Your task to perform on an android device: turn off improve location accuracy Image 0: 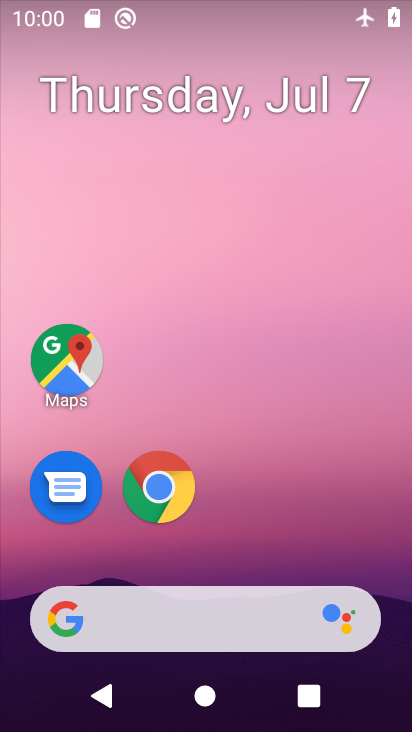
Step 0: drag from (362, 539) to (381, 115)
Your task to perform on an android device: turn off improve location accuracy Image 1: 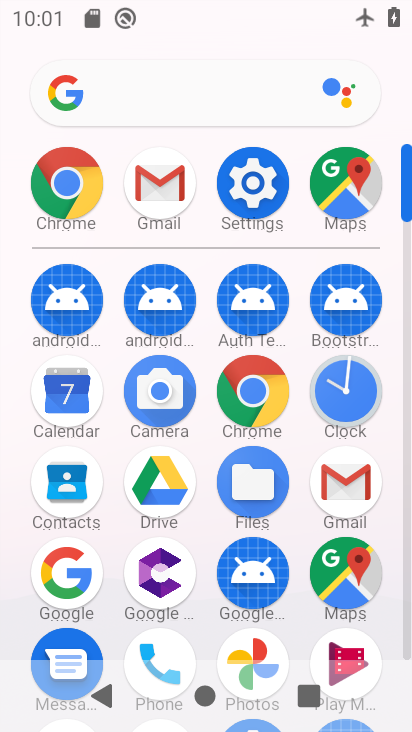
Step 1: click (259, 197)
Your task to perform on an android device: turn off improve location accuracy Image 2: 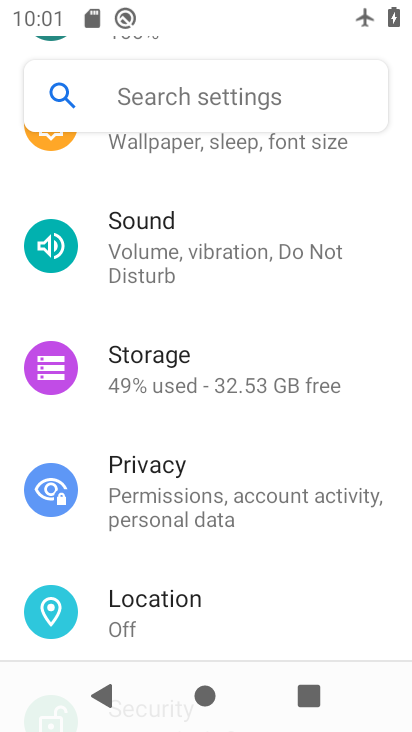
Step 2: drag from (361, 213) to (363, 330)
Your task to perform on an android device: turn off improve location accuracy Image 3: 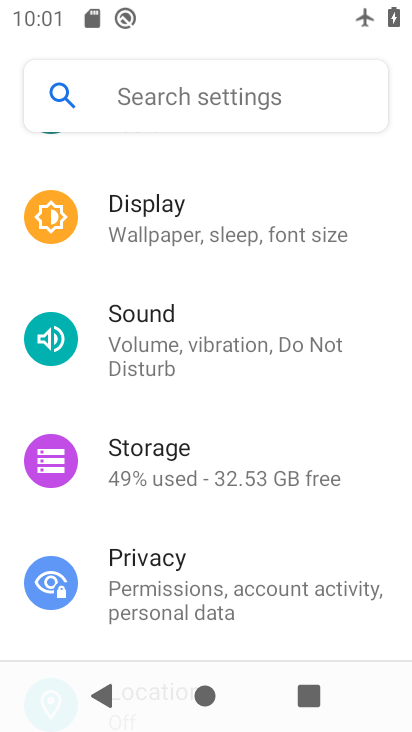
Step 3: drag from (373, 226) to (371, 338)
Your task to perform on an android device: turn off improve location accuracy Image 4: 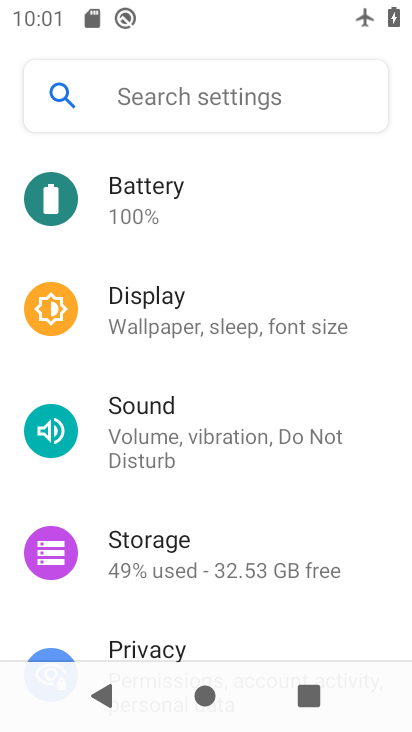
Step 4: drag from (367, 222) to (372, 345)
Your task to perform on an android device: turn off improve location accuracy Image 5: 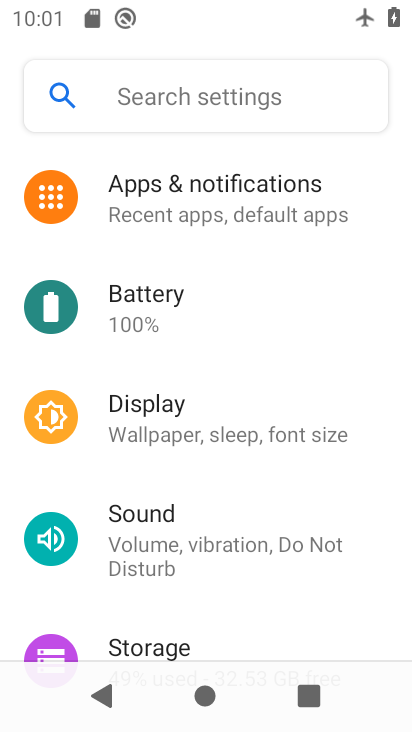
Step 5: drag from (370, 265) to (369, 365)
Your task to perform on an android device: turn off improve location accuracy Image 6: 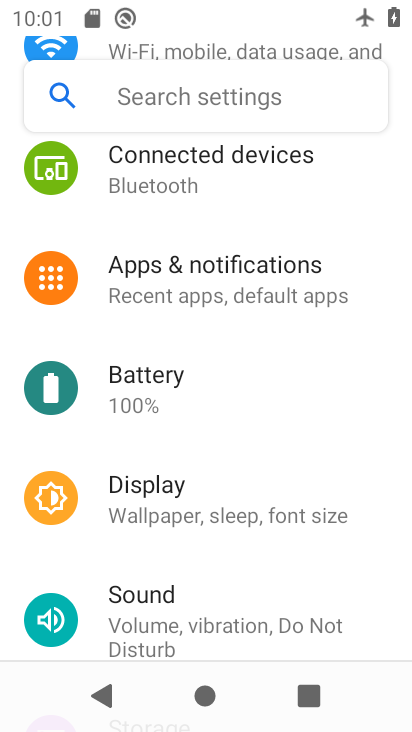
Step 6: drag from (354, 397) to (366, 315)
Your task to perform on an android device: turn off improve location accuracy Image 7: 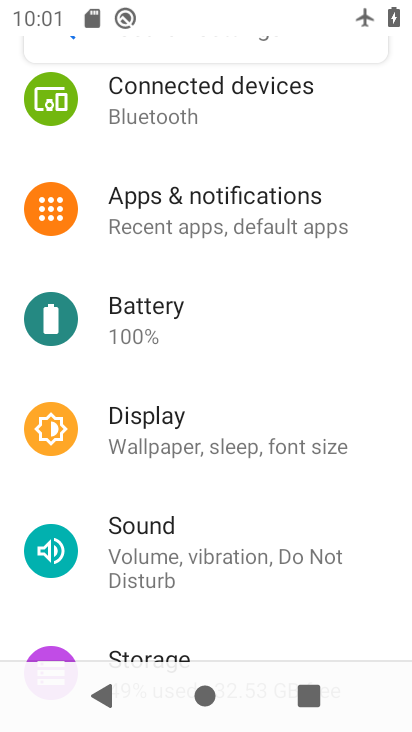
Step 7: drag from (363, 437) to (363, 345)
Your task to perform on an android device: turn off improve location accuracy Image 8: 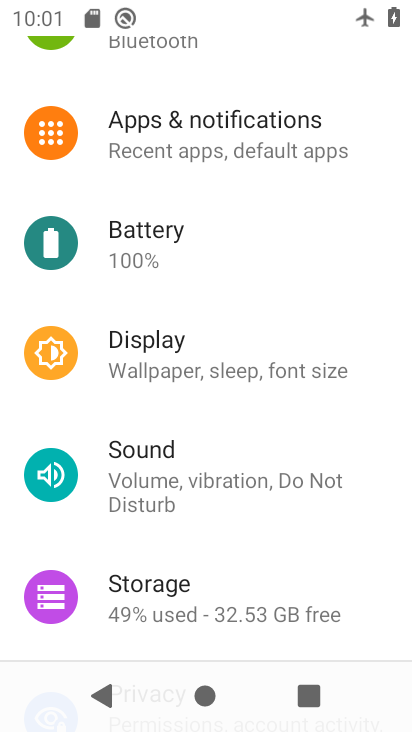
Step 8: drag from (368, 463) to (376, 366)
Your task to perform on an android device: turn off improve location accuracy Image 9: 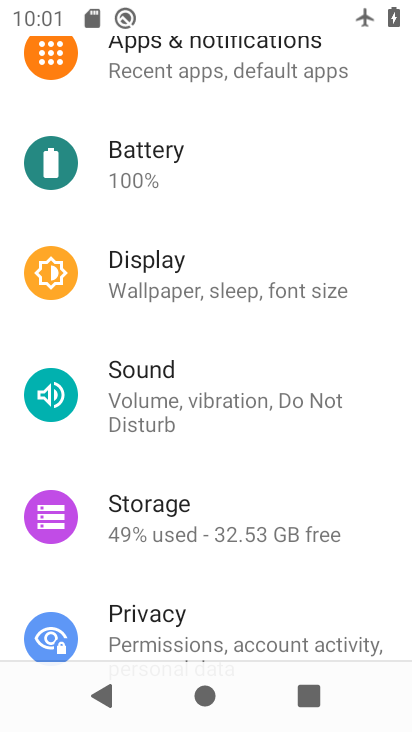
Step 9: drag from (378, 499) to (382, 385)
Your task to perform on an android device: turn off improve location accuracy Image 10: 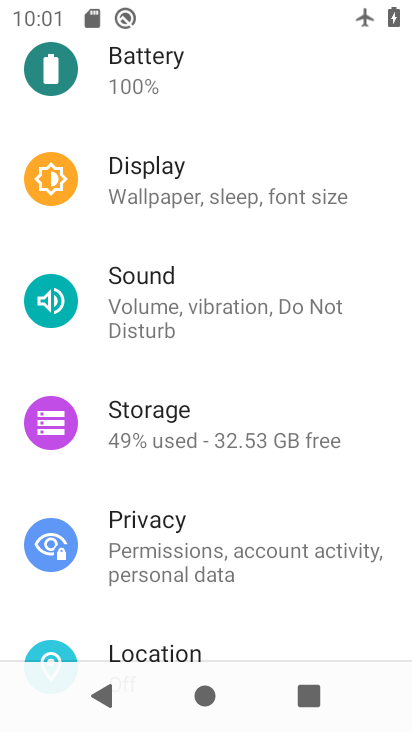
Step 10: drag from (349, 490) to (359, 395)
Your task to perform on an android device: turn off improve location accuracy Image 11: 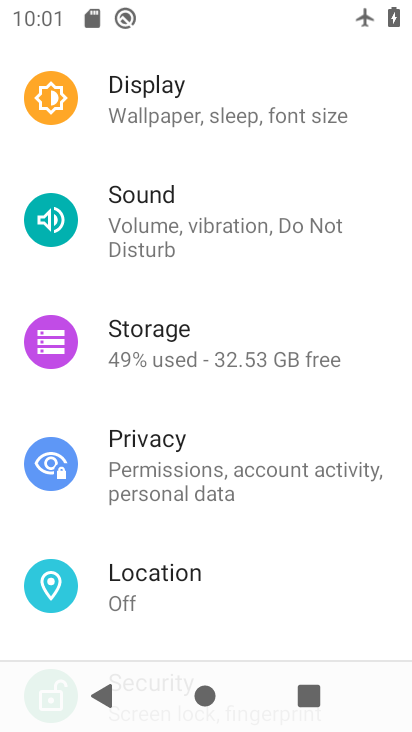
Step 11: drag from (356, 522) to (363, 396)
Your task to perform on an android device: turn off improve location accuracy Image 12: 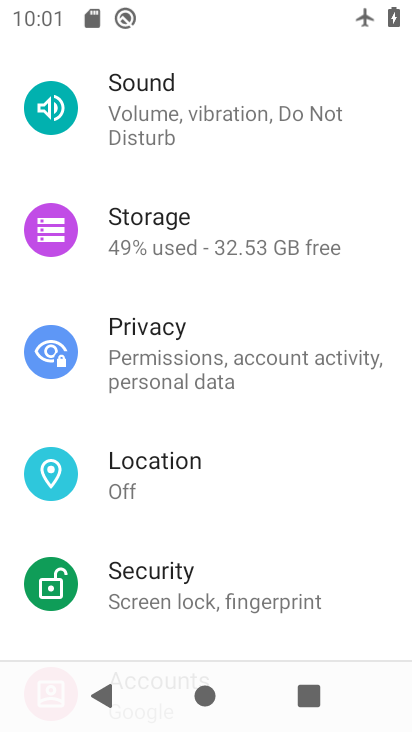
Step 12: click (325, 482)
Your task to perform on an android device: turn off improve location accuracy Image 13: 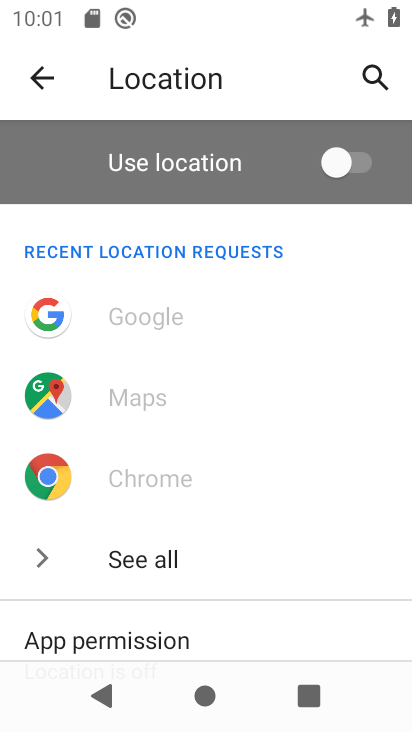
Step 13: drag from (325, 482) to (341, 380)
Your task to perform on an android device: turn off improve location accuracy Image 14: 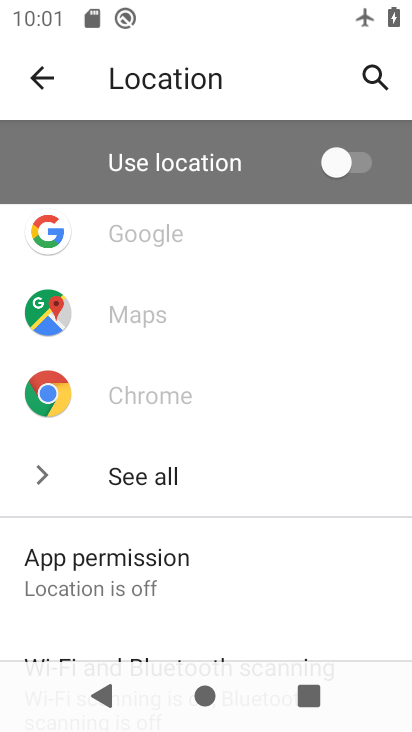
Step 14: drag from (344, 497) to (353, 381)
Your task to perform on an android device: turn off improve location accuracy Image 15: 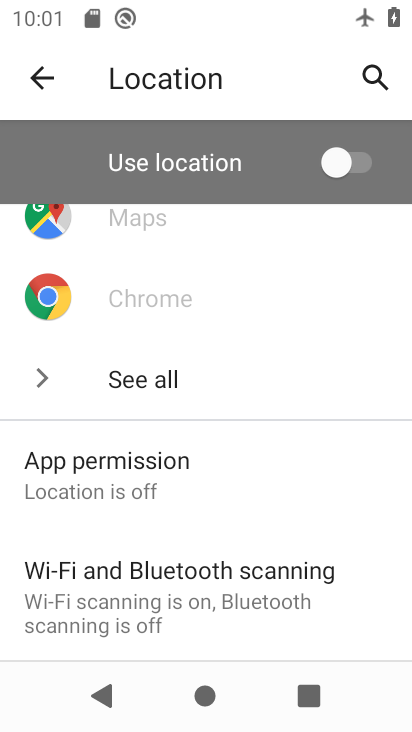
Step 15: drag from (351, 506) to (378, 357)
Your task to perform on an android device: turn off improve location accuracy Image 16: 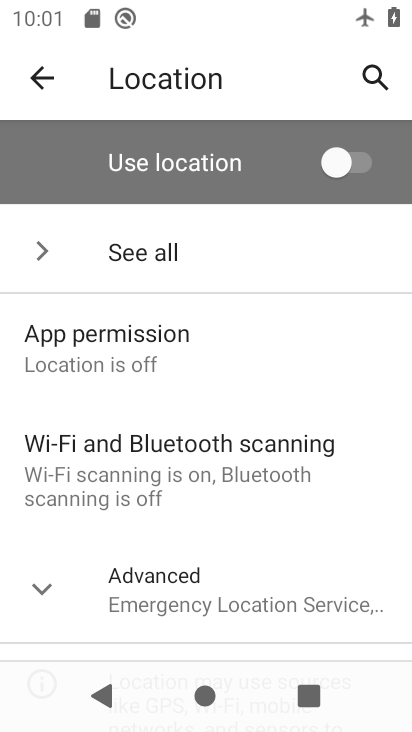
Step 16: drag from (355, 507) to (369, 402)
Your task to perform on an android device: turn off improve location accuracy Image 17: 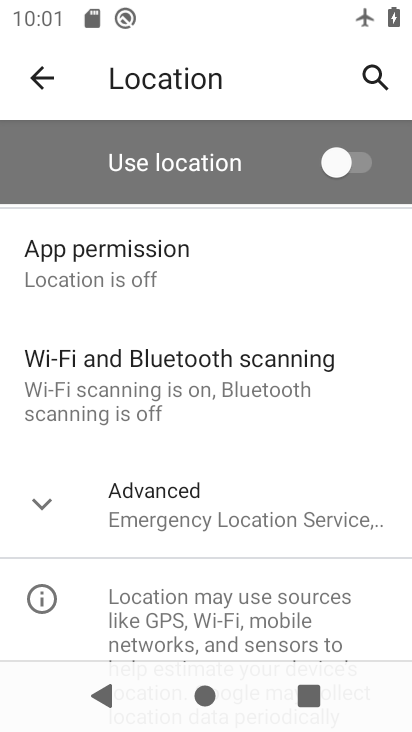
Step 17: click (353, 512)
Your task to perform on an android device: turn off improve location accuracy Image 18: 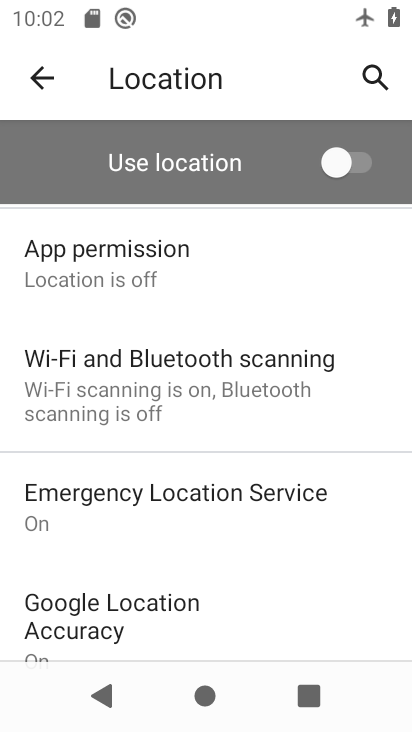
Step 18: drag from (337, 590) to (348, 494)
Your task to perform on an android device: turn off improve location accuracy Image 19: 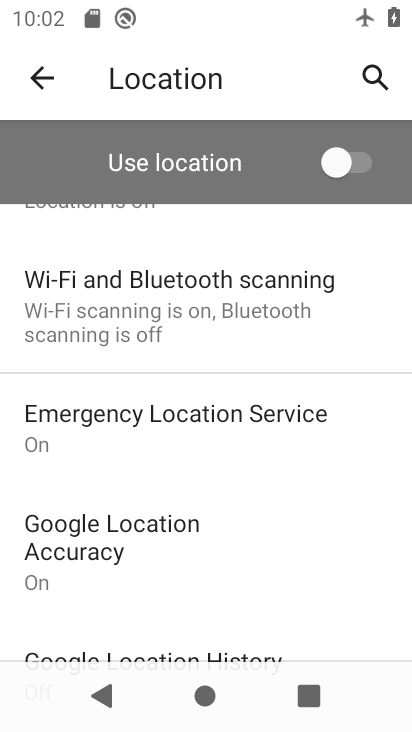
Step 19: drag from (346, 572) to (346, 424)
Your task to perform on an android device: turn off improve location accuracy Image 20: 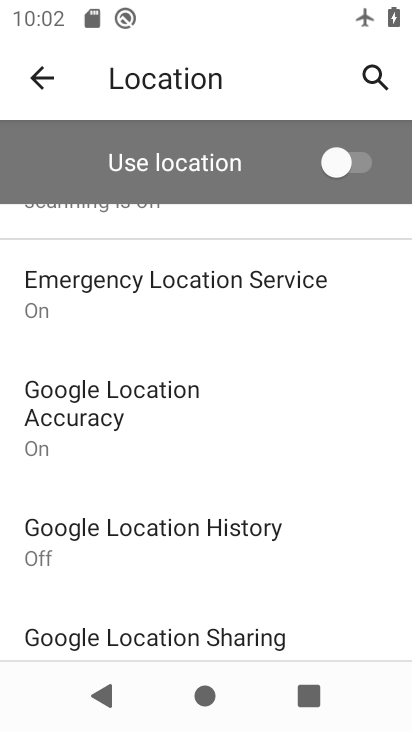
Step 20: click (181, 416)
Your task to perform on an android device: turn off improve location accuracy Image 21: 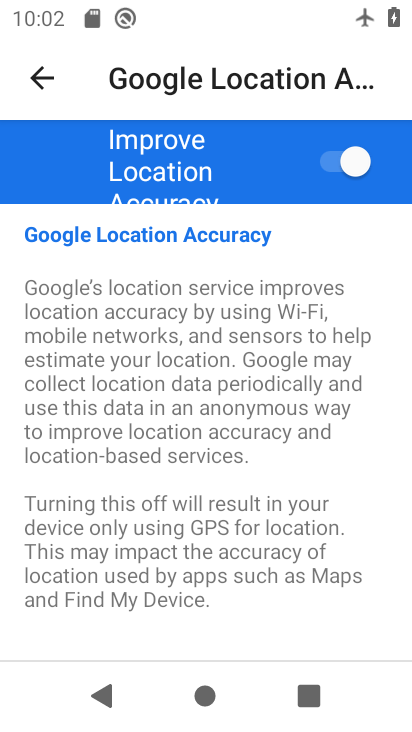
Step 21: click (351, 157)
Your task to perform on an android device: turn off improve location accuracy Image 22: 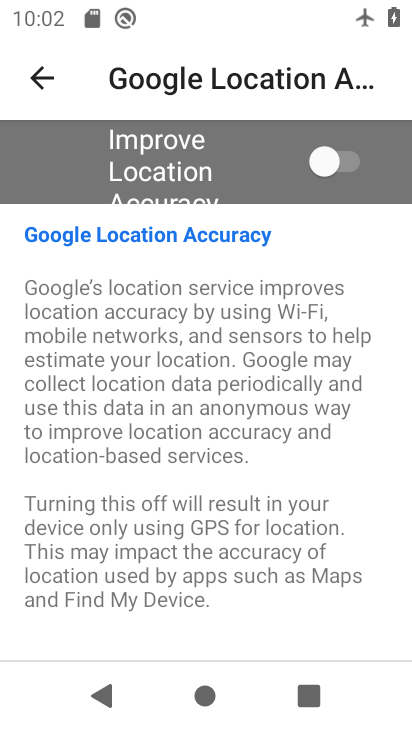
Step 22: task complete